Your task to perform on an android device: change the clock display to show seconds Image 0: 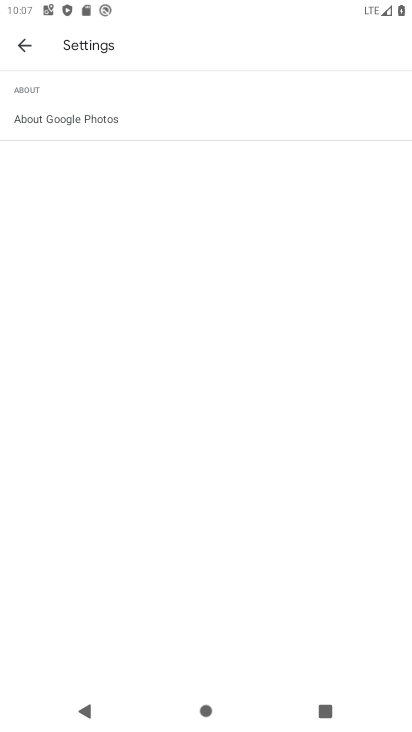
Step 0: press home button
Your task to perform on an android device: change the clock display to show seconds Image 1: 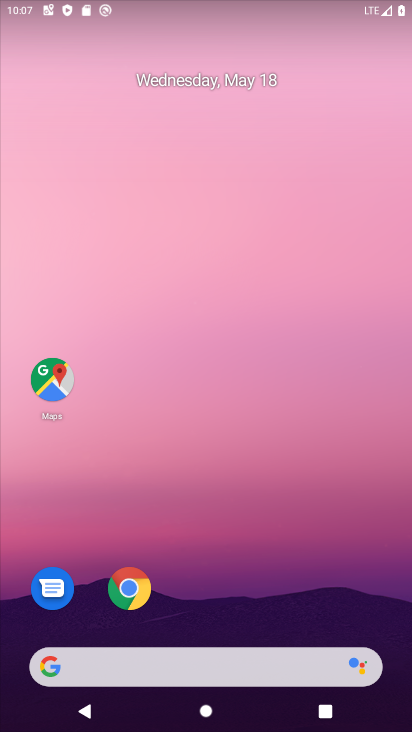
Step 1: drag from (368, 636) to (341, 2)
Your task to perform on an android device: change the clock display to show seconds Image 2: 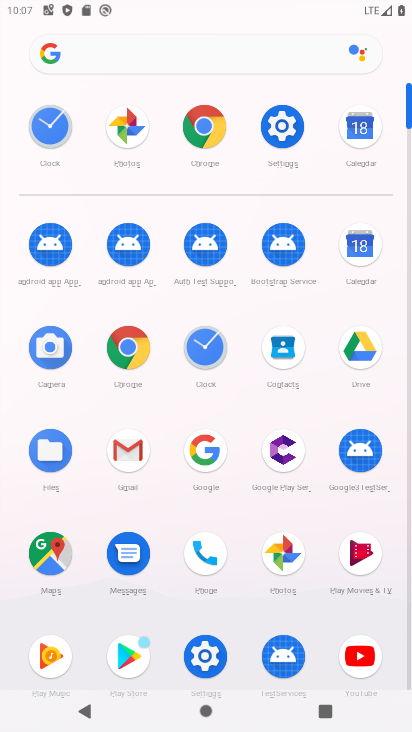
Step 2: click (51, 129)
Your task to perform on an android device: change the clock display to show seconds Image 3: 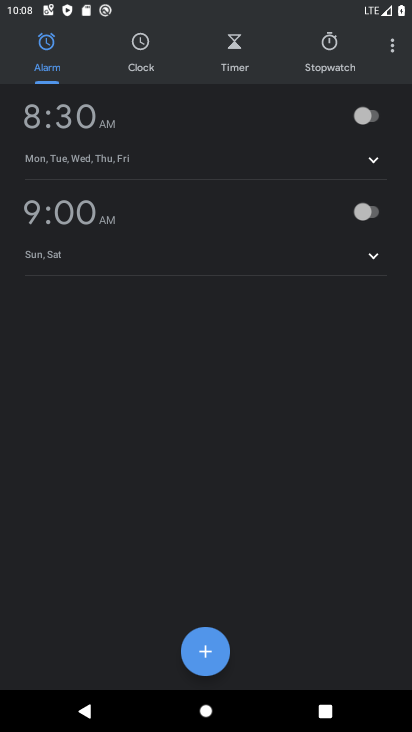
Step 3: click (405, 39)
Your task to perform on an android device: change the clock display to show seconds Image 4: 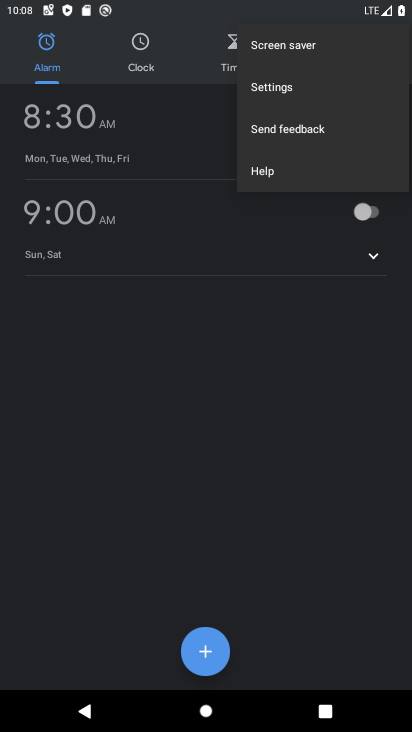
Step 4: click (271, 87)
Your task to perform on an android device: change the clock display to show seconds Image 5: 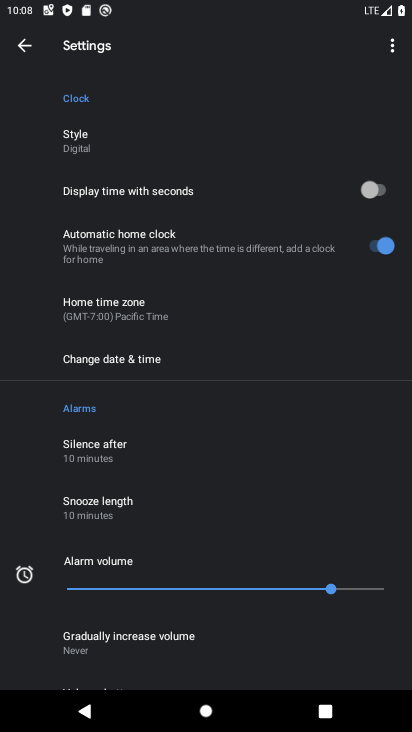
Step 5: click (374, 184)
Your task to perform on an android device: change the clock display to show seconds Image 6: 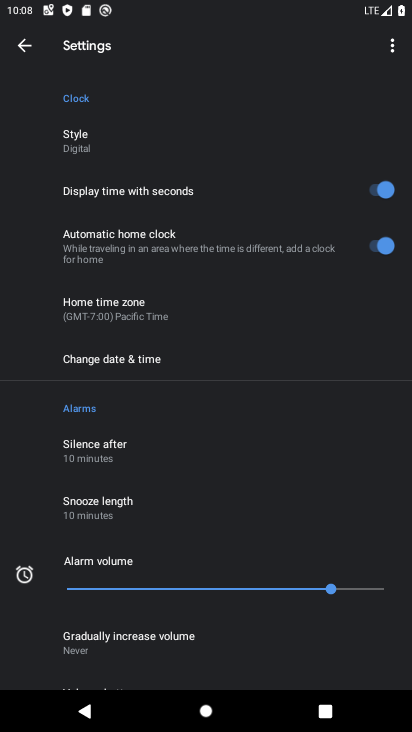
Step 6: task complete